Your task to perform on an android device: snooze an email in the gmail app Image 0: 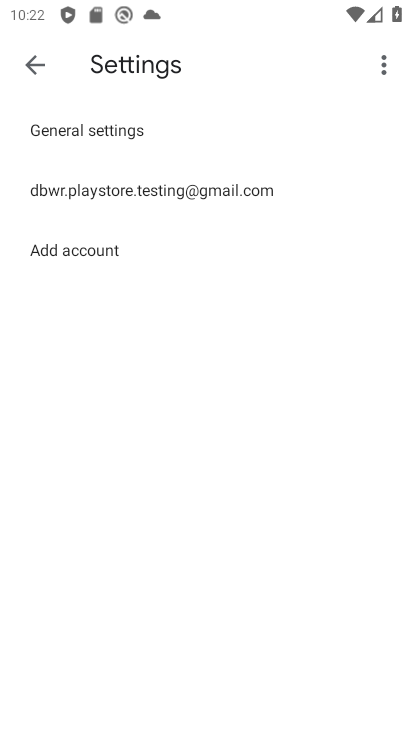
Step 0: press back button
Your task to perform on an android device: snooze an email in the gmail app Image 1: 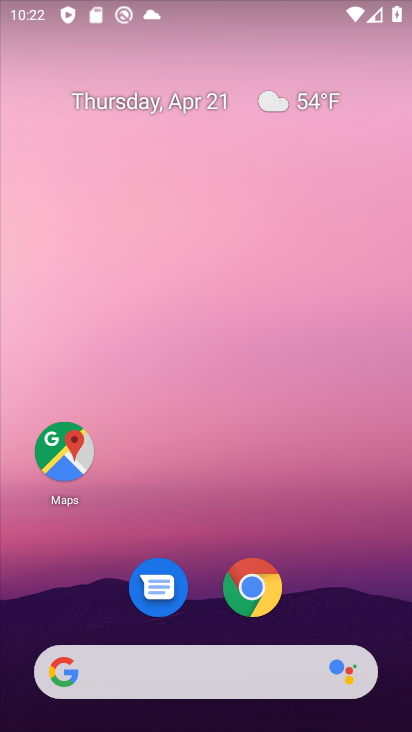
Step 1: drag from (192, 663) to (259, 44)
Your task to perform on an android device: snooze an email in the gmail app Image 2: 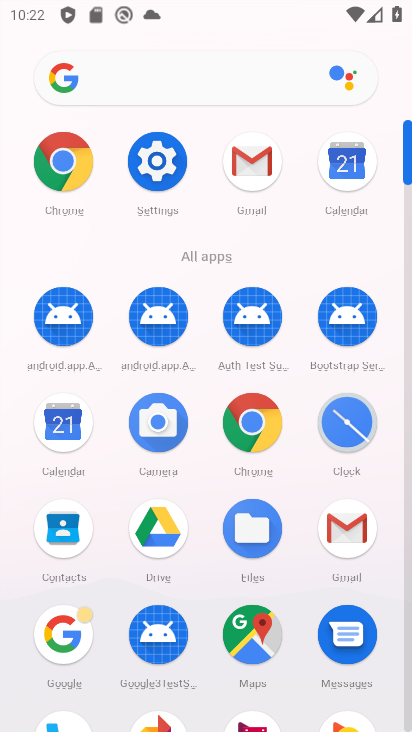
Step 2: click (259, 163)
Your task to perform on an android device: snooze an email in the gmail app Image 3: 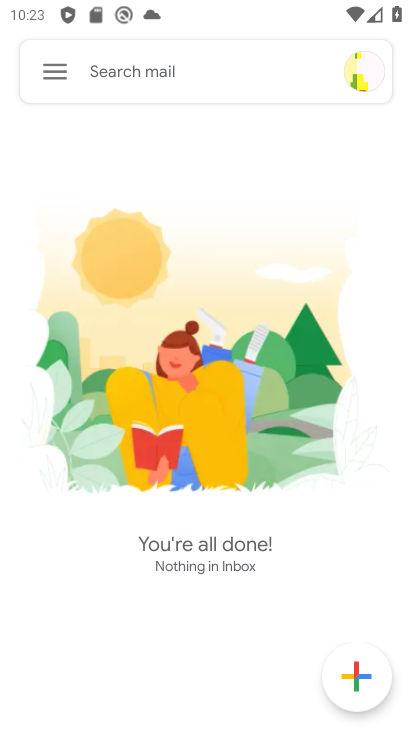
Step 3: click (40, 60)
Your task to perform on an android device: snooze an email in the gmail app Image 4: 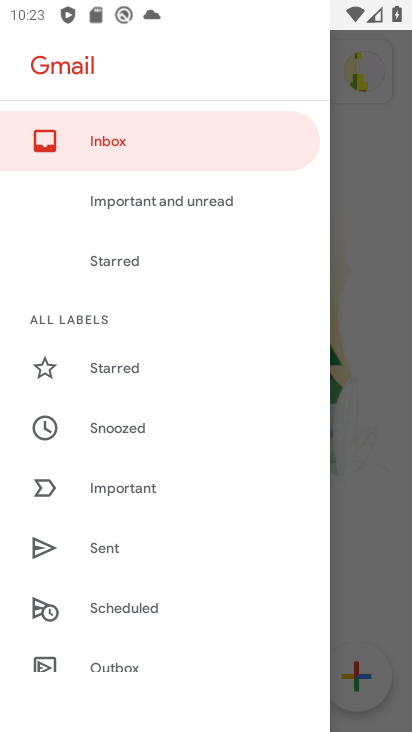
Step 4: drag from (104, 614) to (104, 229)
Your task to perform on an android device: snooze an email in the gmail app Image 5: 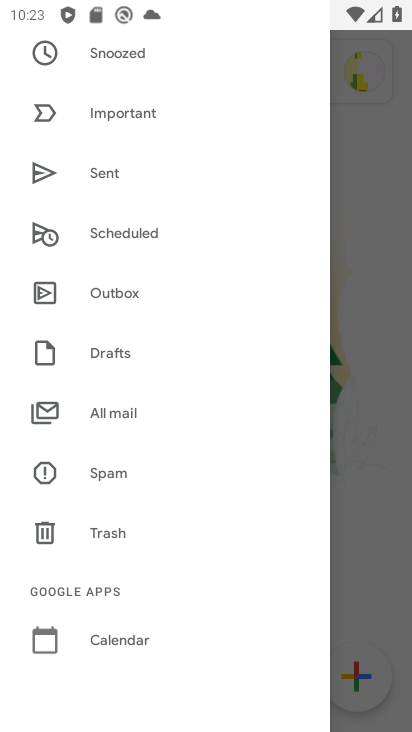
Step 5: click (100, 405)
Your task to perform on an android device: snooze an email in the gmail app Image 6: 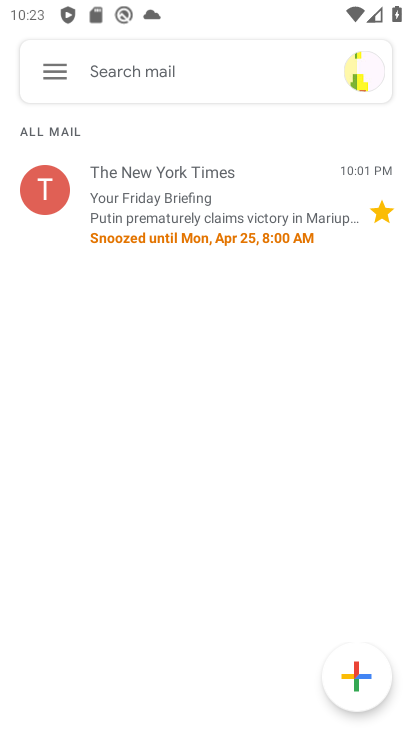
Step 6: click (25, 197)
Your task to perform on an android device: snooze an email in the gmail app Image 7: 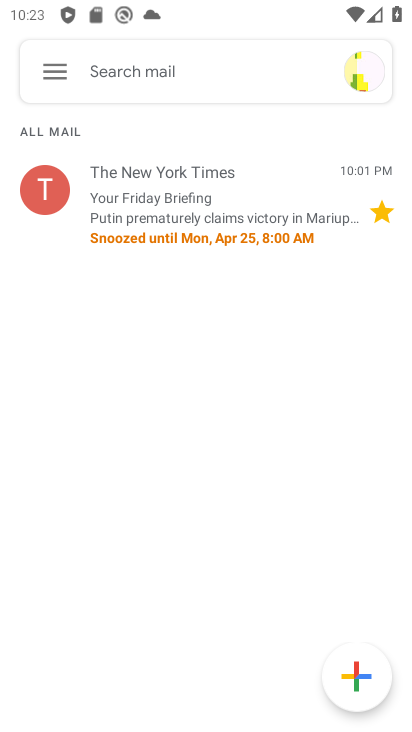
Step 7: click (49, 199)
Your task to perform on an android device: snooze an email in the gmail app Image 8: 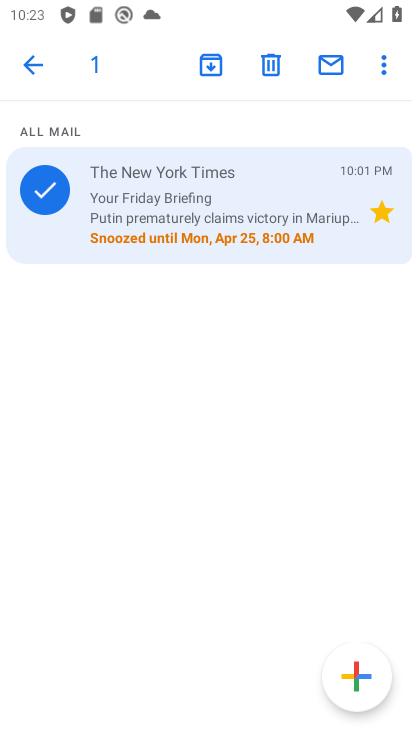
Step 8: click (389, 52)
Your task to perform on an android device: snooze an email in the gmail app Image 9: 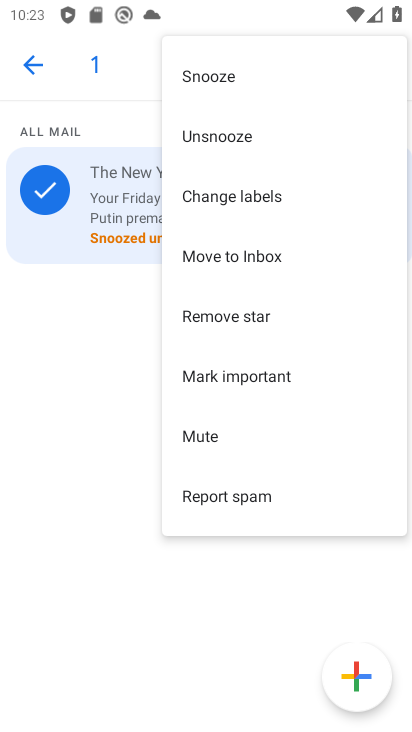
Step 9: click (256, 69)
Your task to perform on an android device: snooze an email in the gmail app Image 10: 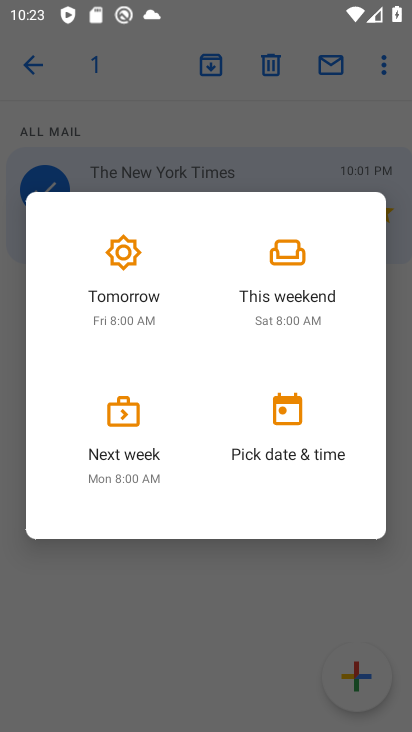
Step 10: click (131, 286)
Your task to perform on an android device: snooze an email in the gmail app Image 11: 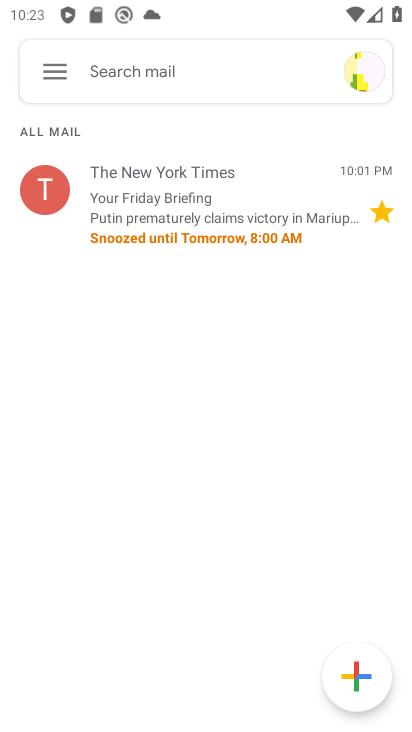
Step 11: task complete